Your task to perform on an android device: Open Google Maps Image 0: 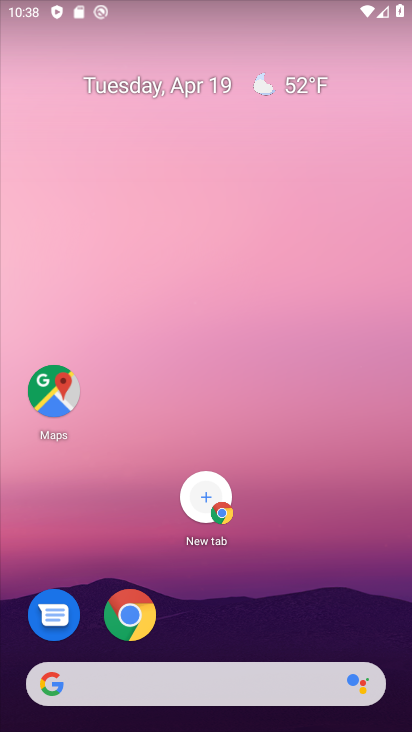
Step 0: click (38, 384)
Your task to perform on an android device: Open Google Maps Image 1: 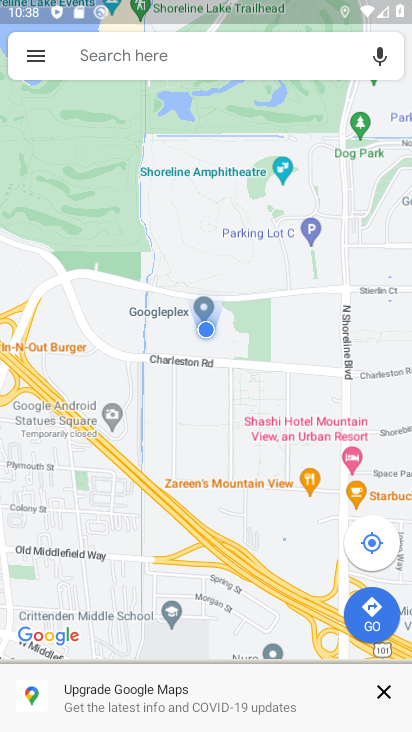
Step 1: task complete